Your task to perform on an android device: open sync settings in chrome Image 0: 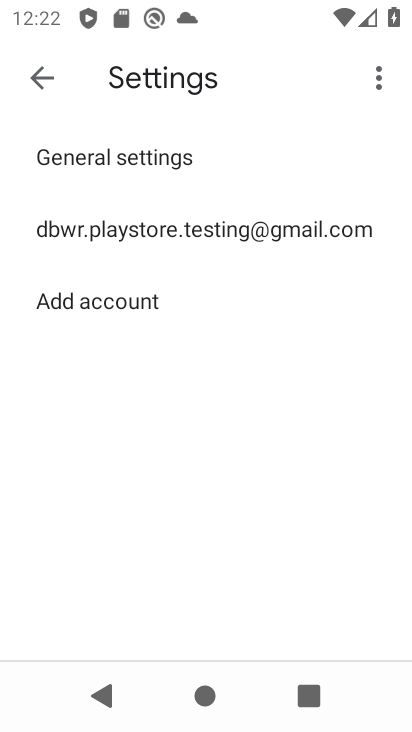
Step 0: press home button
Your task to perform on an android device: open sync settings in chrome Image 1: 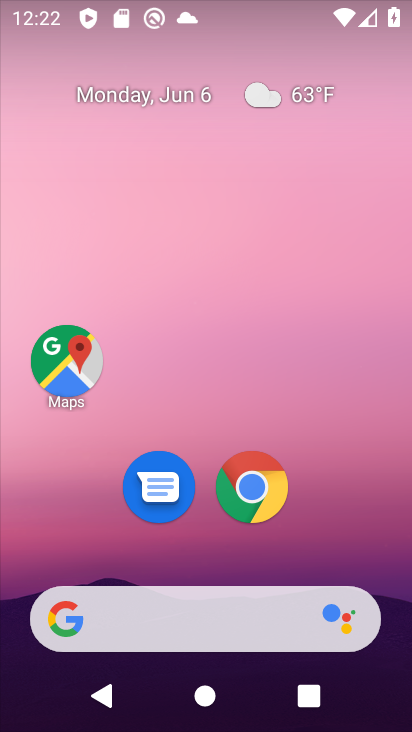
Step 1: click (259, 484)
Your task to perform on an android device: open sync settings in chrome Image 2: 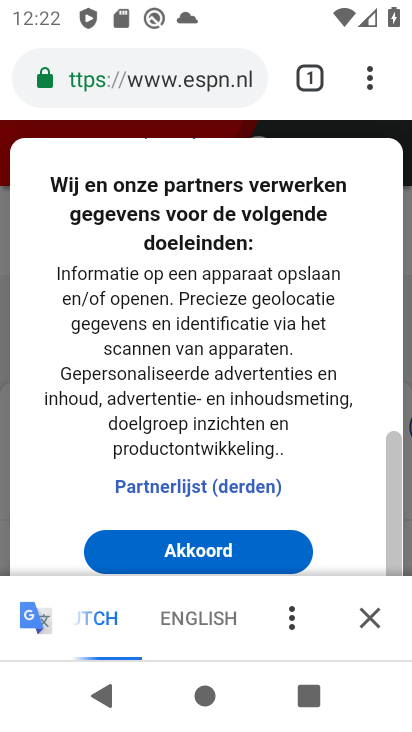
Step 2: click (368, 80)
Your task to perform on an android device: open sync settings in chrome Image 3: 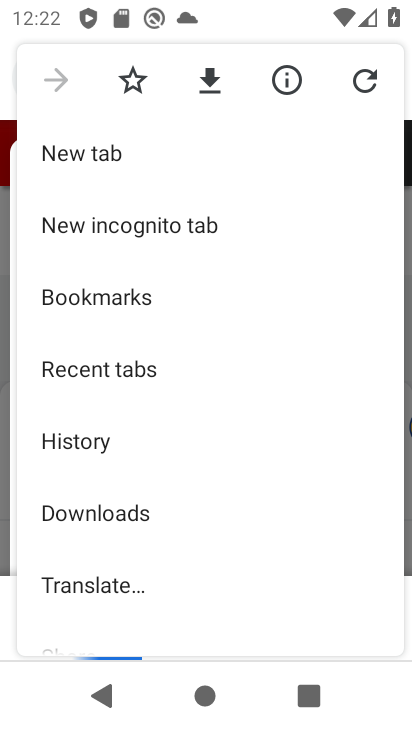
Step 3: drag from (184, 505) to (250, 98)
Your task to perform on an android device: open sync settings in chrome Image 4: 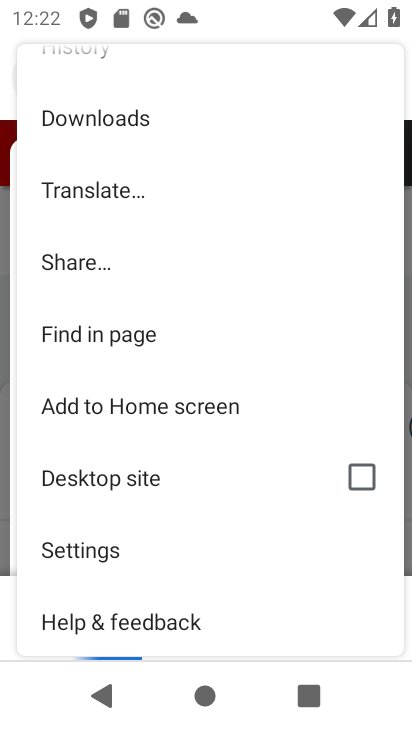
Step 4: click (92, 551)
Your task to perform on an android device: open sync settings in chrome Image 5: 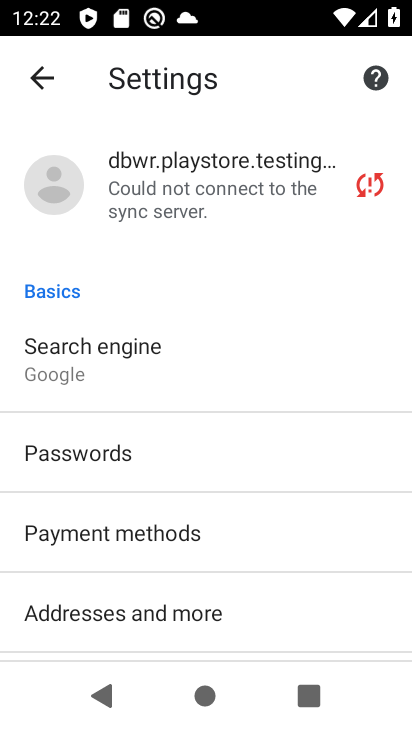
Step 5: click (157, 182)
Your task to perform on an android device: open sync settings in chrome Image 6: 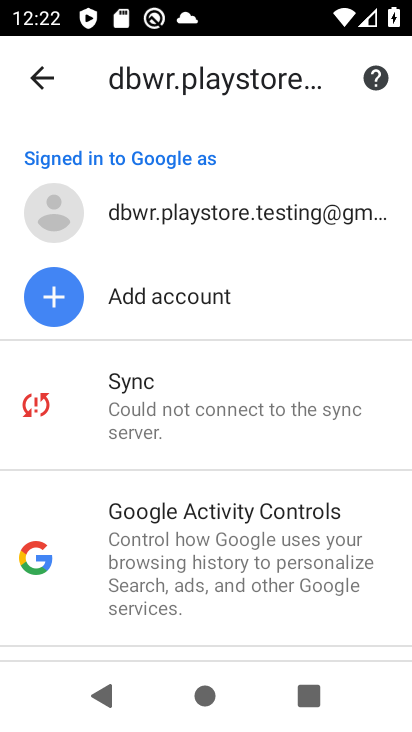
Step 6: click (130, 389)
Your task to perform on an android device: open sync settings in chrome Image 7: 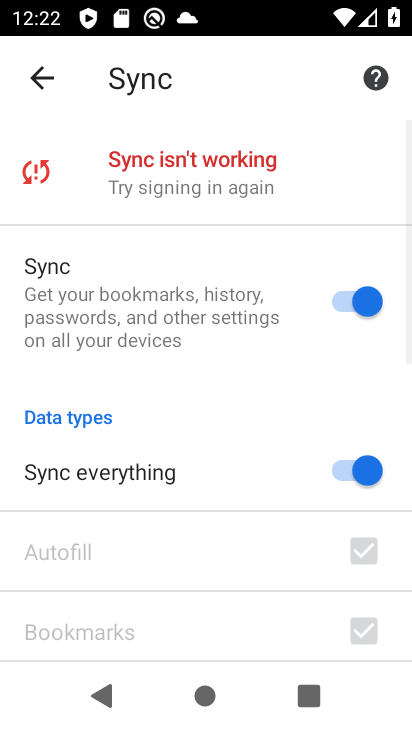
Step 7: task complete